Your task to perform on an android device: remove spam from my inbox in the gmail app Image 0: 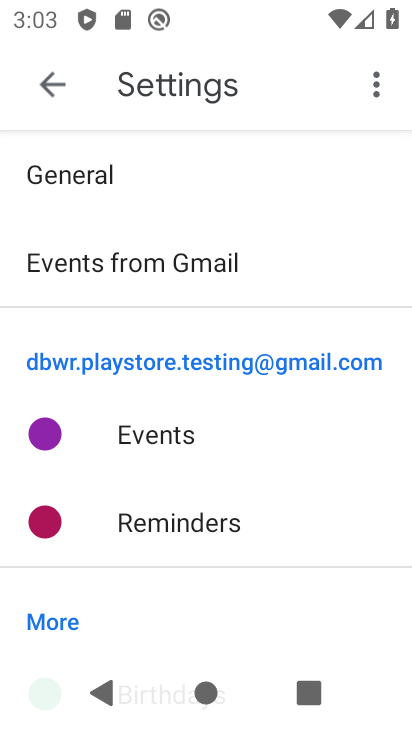
Step 0: press home button
Your task to perform on an android device: remove spam from my inbox in the gmail app Image 1: 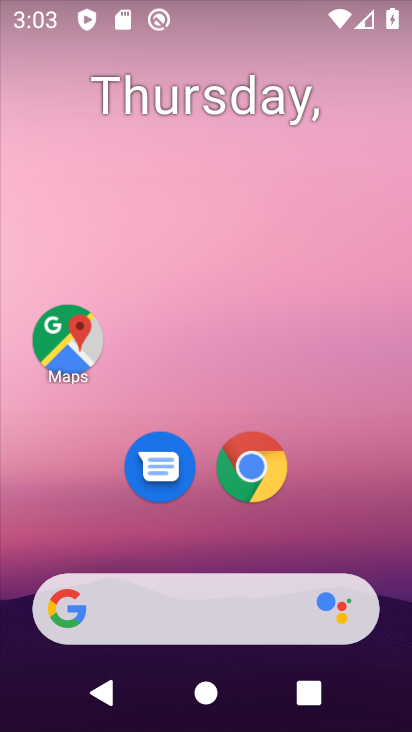
Step 1: drag from (218, 600) to (181, 24)
Your task to perform on an android device: remove spam from my inbox in the gmail app Image 2: 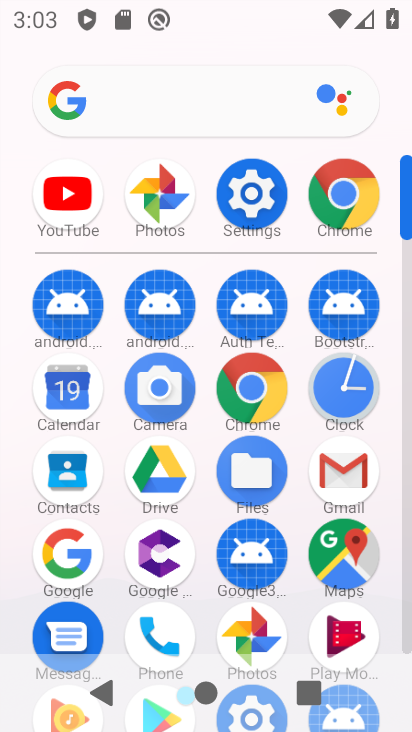
Step 2: click (345, 483)
Your task to perform on an android device: remove spam from my inbox in the gmail app Image 3: 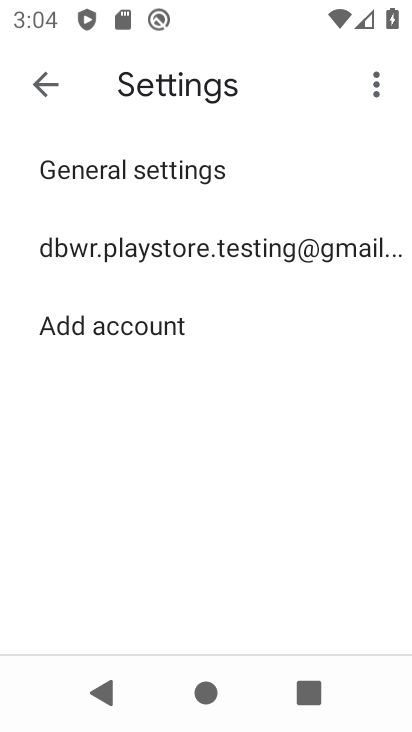
Step 3: click (55, 76)
Your task to perform on an android device: remove spam from my inbox in the gmail app Image 4: 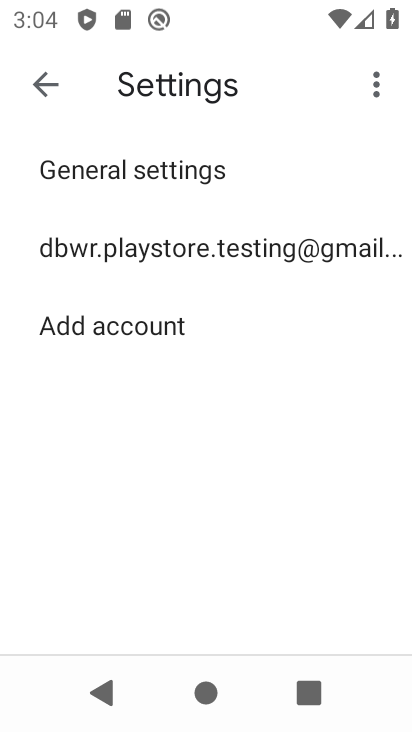
Step 4: click (55, 76)
Your task to perform on an android device: remove spam from my inbox in the gmail app Image 5: 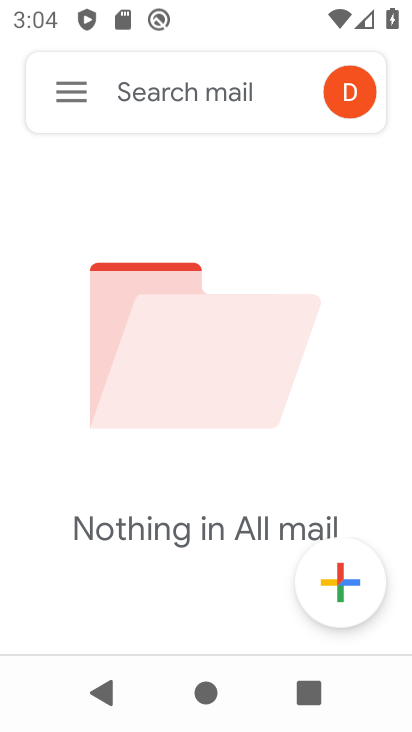
Step 5: click (78, 92)
Your task to perform on an android device: remove spam from my inbox in the gmail app Image 6: 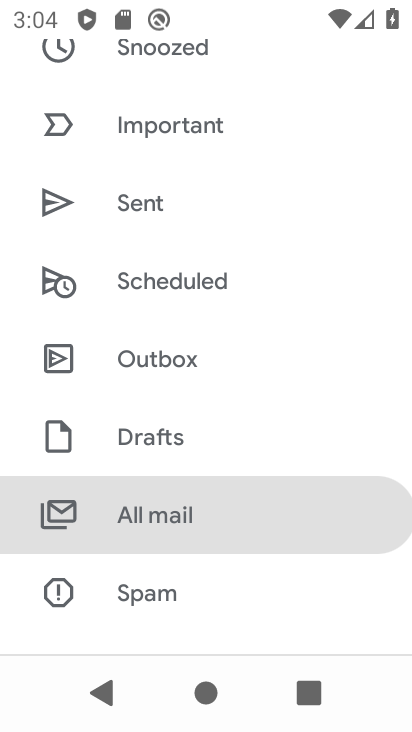
Step 6: click (155, 504)
Your task to perform on an android device: remove spam from my inbox in the gmail app Image 7: 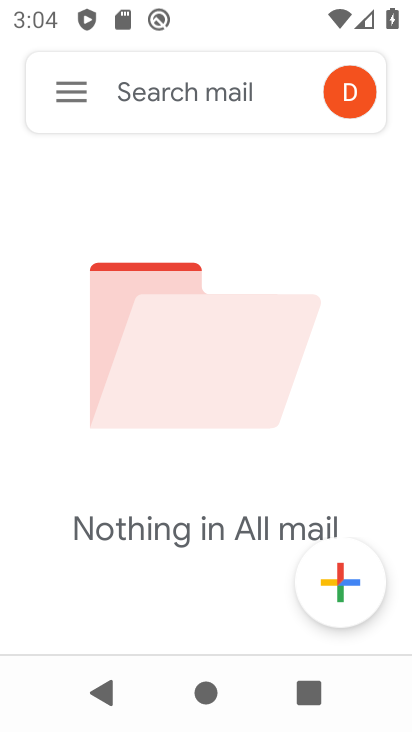
Step 7: task complete